Your task to perform on an android device: see sites visited before in the chrome app Image 0: 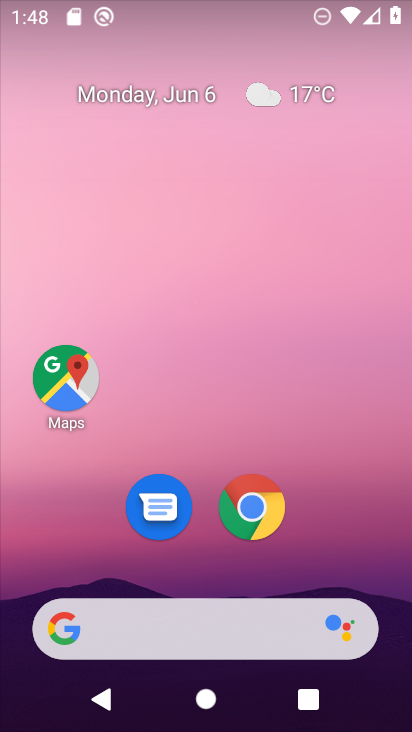
Step 0: drag from (327, 632) to (226, 119)
Your task to perform on an android device: see sites visited before in the chrome app Image 1: 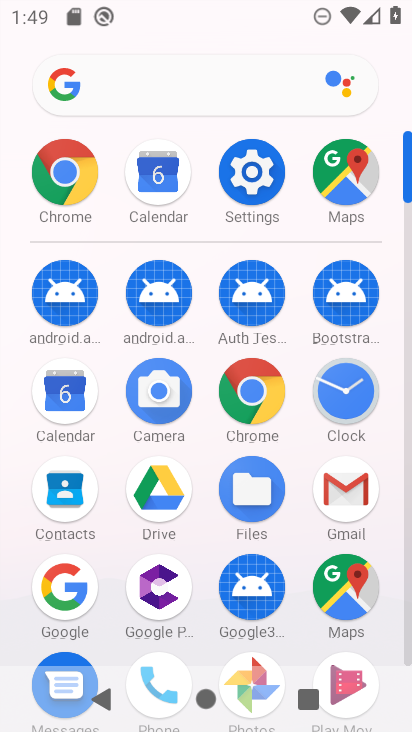
Step 1: click (57, 164)
Your task to perform on an android device: see sites visited before in the chrome app Image 2: 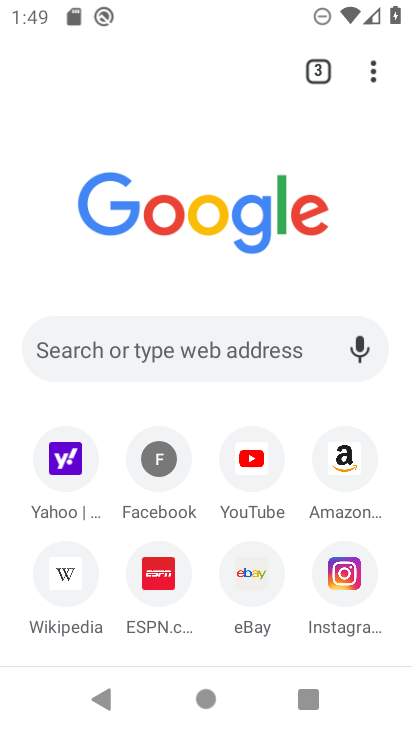
Step 2: click (373, 83)
Your task to perform on an android device: see sites visited before in the chrome app Image 3: 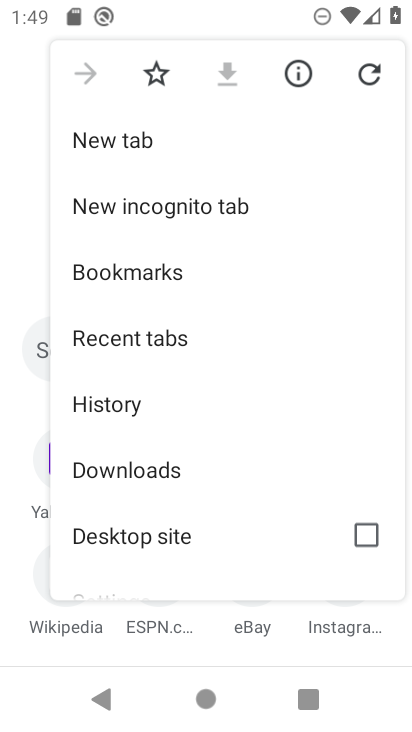
Step 3: drag from (152, 507) to (189, 268)
Your task to perform on an android device: see sites visited before in the chrome app Image 4: 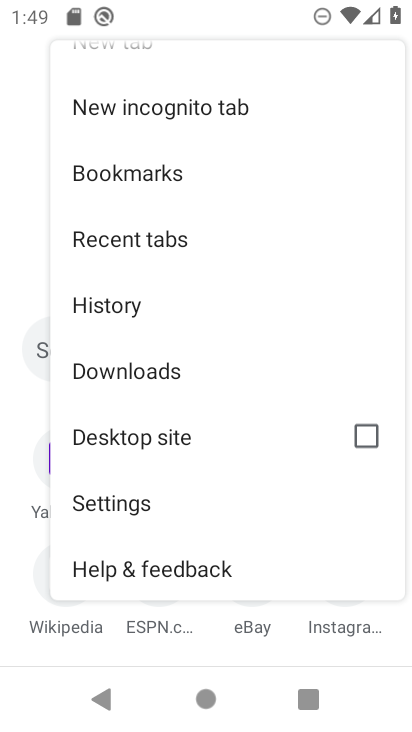
Step 4: click (138, 494)
Your task to perform on an android device: see sites visited before in the chrome app Image 5: 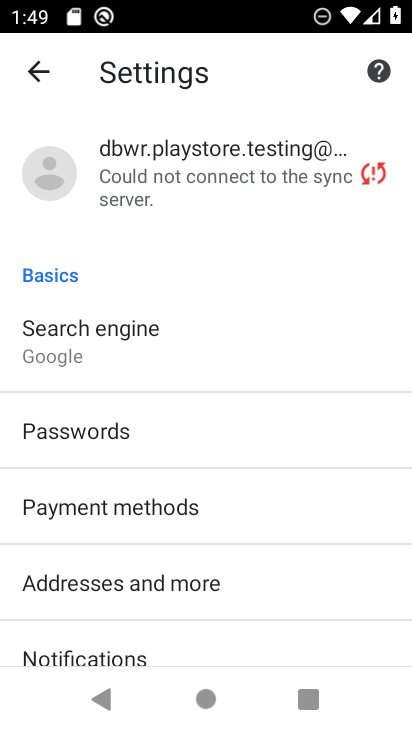
Step 5: drag from (157, 557) to (159, 352)
Your task to perform on an android device: see sites visited before in the chrome app Image 6: 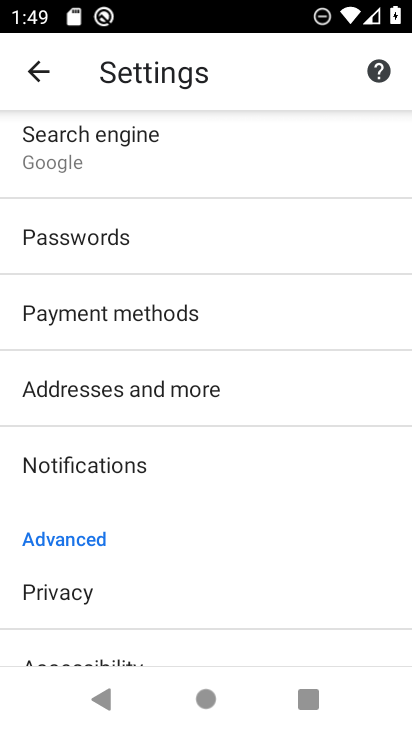
Step 6: drag from (140, 579) to (139, 485)
Your task to perform on an android device: see sites visited before in the chrome app Image 7: 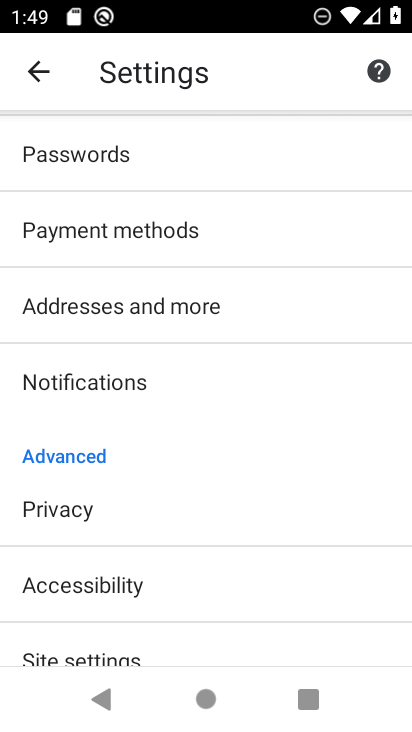
Step 7: click (94, 639)
Your task to perform on an android device: see sites visited before in the chrome app Image 8: 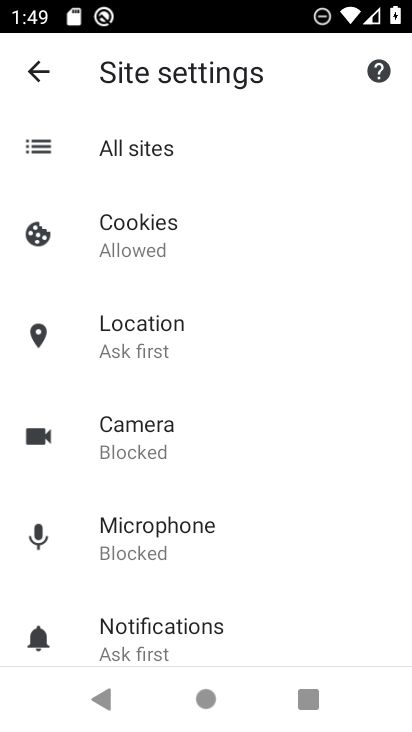
Step 8: task complete